Your task to perform on an android device: Go to Reddit.com Image 0: 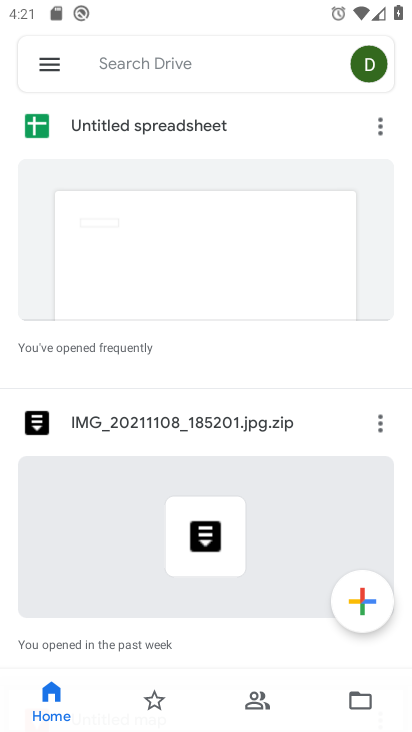
Step 0: press home button
Your task to perform on an android device: Go to Reddit.com Image 1: 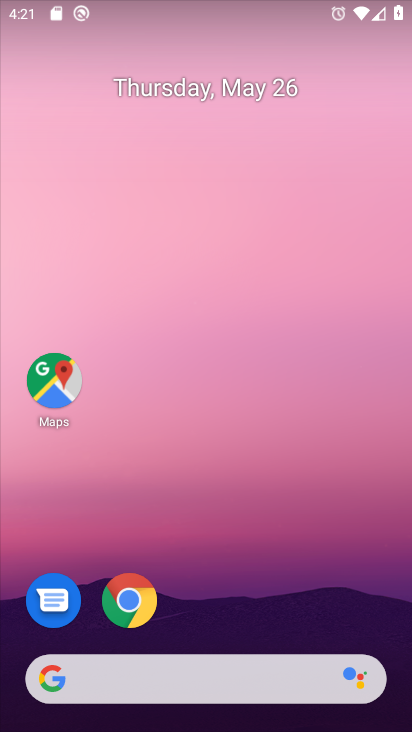
Step 1: click (103, 590)
Your task to perform on an android device: Go to Reddit.com Image 2: 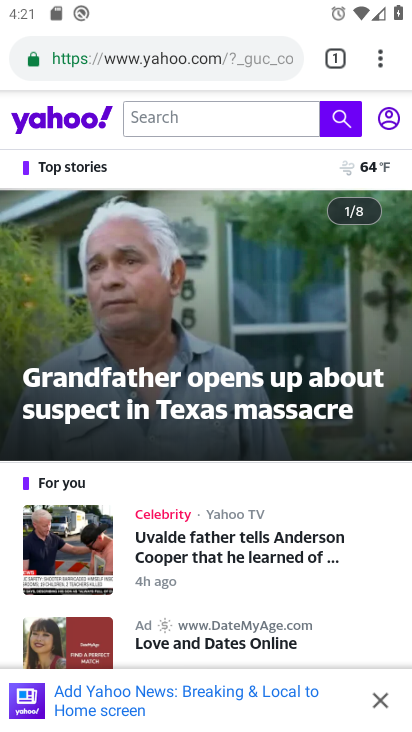
Step 2: click (186, 54)
Your task to perform on an android device: Go to Reddit.com Image 3: 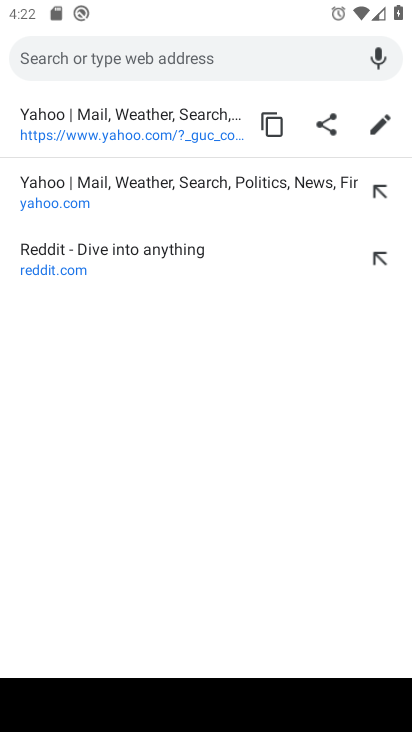
Step 3: type "Reddit.com"
Your task to perform on an android device: Go to Reddit.com Image 4: 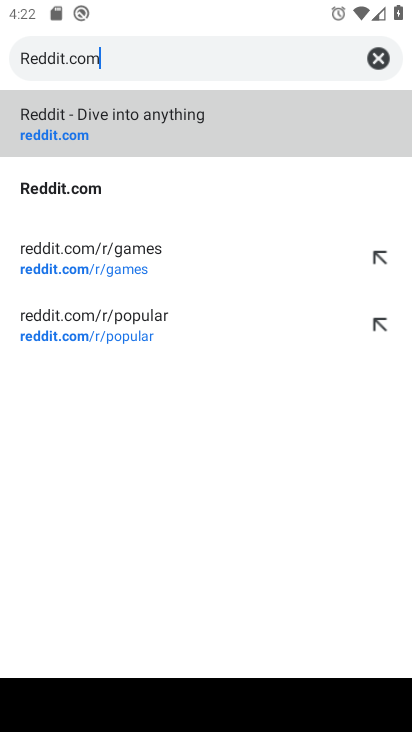
Step 4: click (49, 134)
Your task to perform on an android device: Go to Reddit.com Image 5: 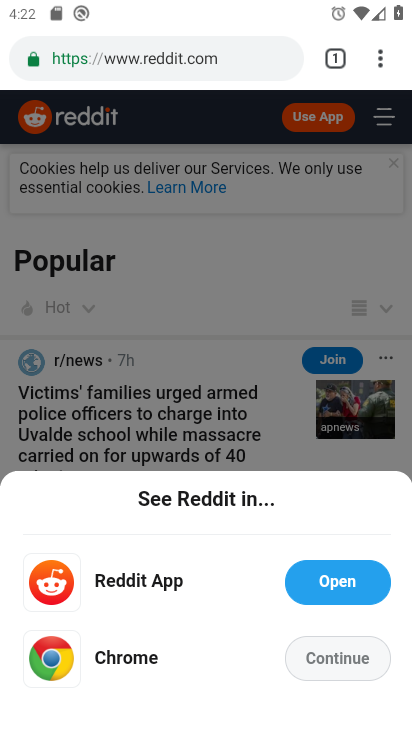
Step 5: task complete